Your task to perform on an android device: toggle priority inbox in the gmail app Image 0: 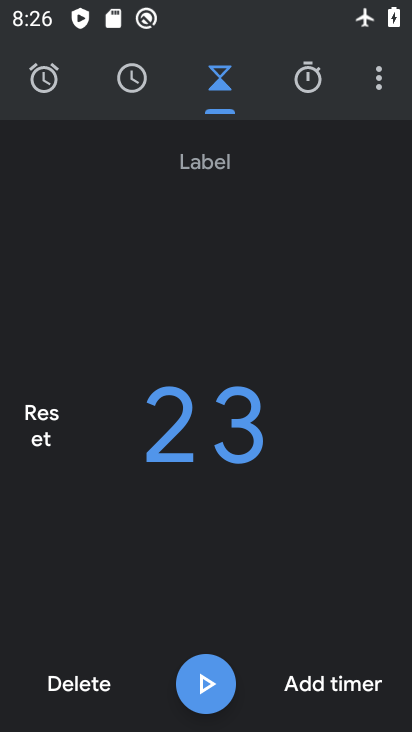
Step 0: press home button
Your task to perform on an android device: toggle priority inbox in the gmail app Image 1: 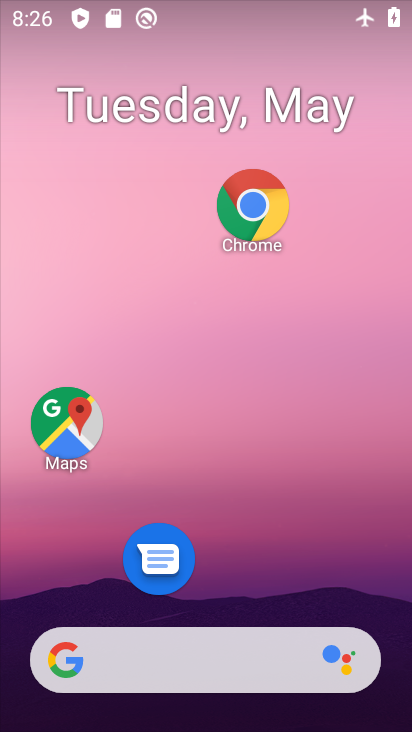
Step 1: drag from (251, 594) to (247, 166)
Your task to perform on an android device: toggle priority inbox in the gmail app Image 2: 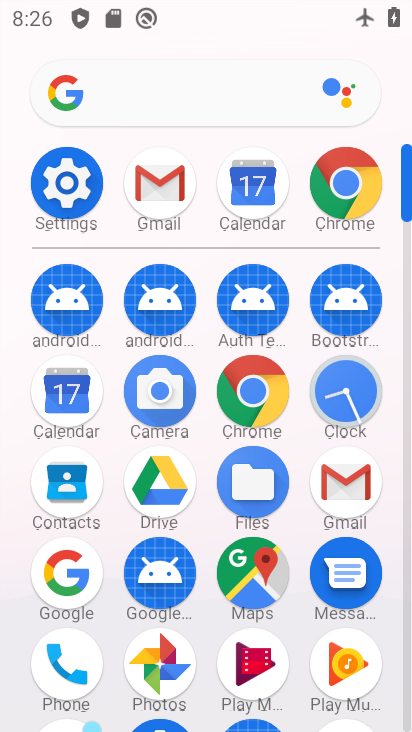
Step 2: click (176, 206)
Your task to perform on an android device: toggle priority inbox in the gmail app Image 3: 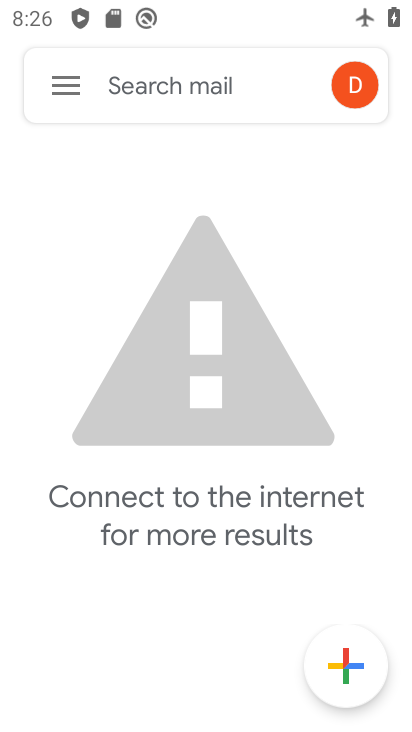
Step 3: click (70, 82)
Your task to perform on an android device: toggle priority inbox in the gmail app Image 4: 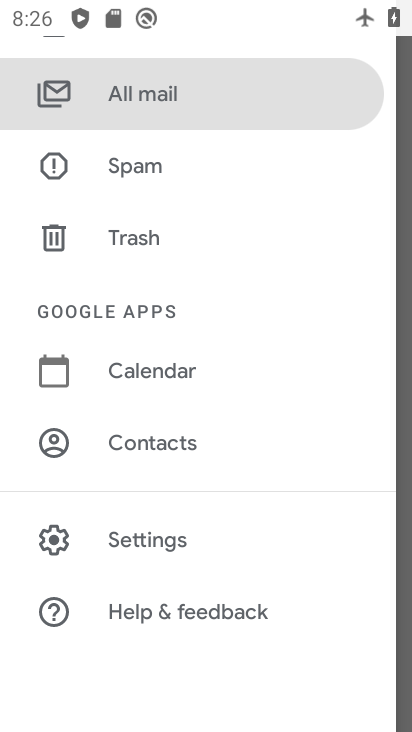
Step 4: click (164, 543)
Your task to perform on an android device: toggle priority inbox in the gmail app Image 5: 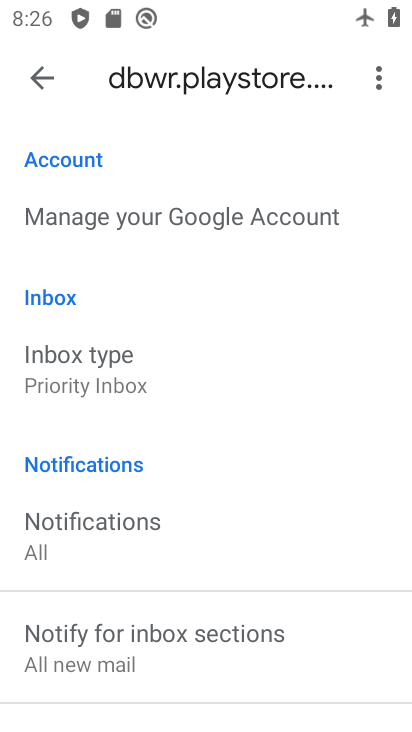
Step 5: click (129, 369)
Your task to perform on an android device: toggle priority inbox in the gmail app Image 6: 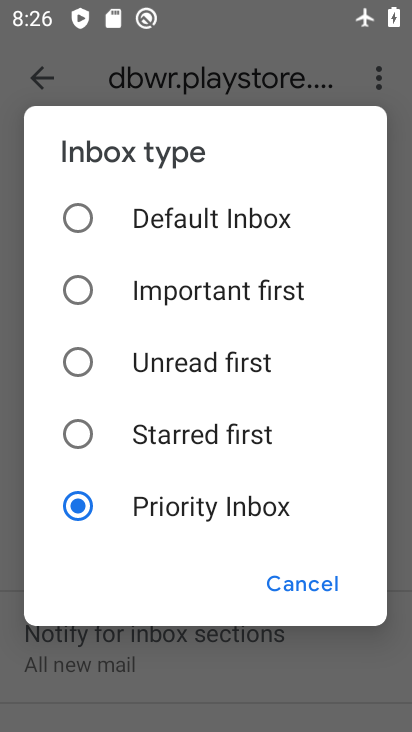
Step 6: click (84, 208)
Your task to perform on an android device: toggle priority inbox in the gmail app Image 7: 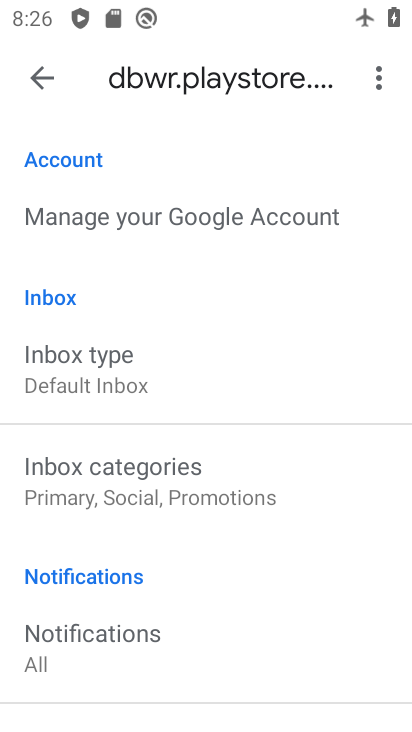
Step 7: task complete